Your task to perform on an android device: turn off notifications in google photos Image 0: 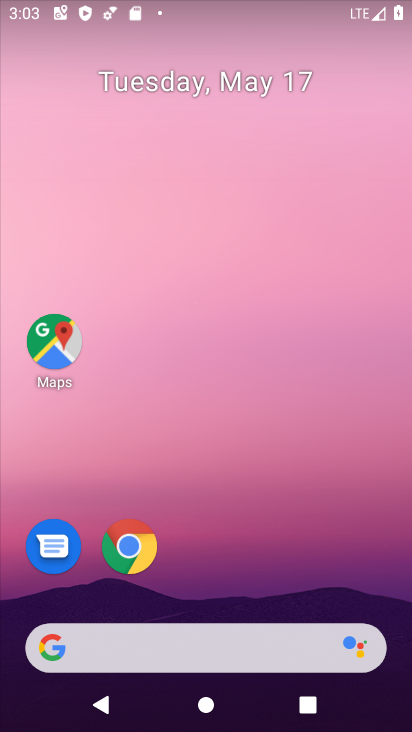
Step 0: press home button
Your task to perform on an android device: turn off notifications in google photos Image 1: 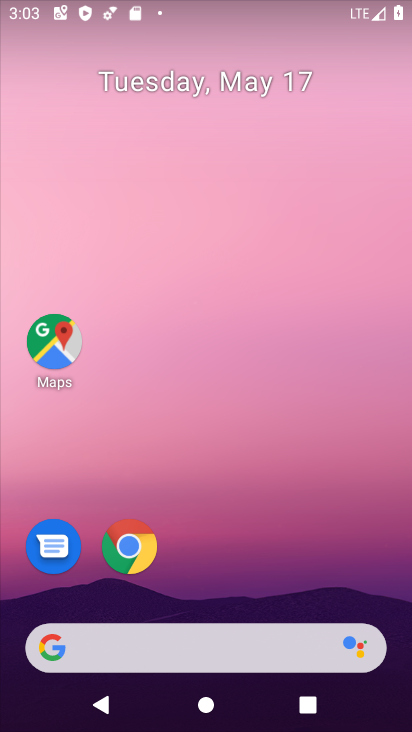
Step 1: drag from (347, 590) to (380, 112)
Your task to perform on an android device: turn off notifications in google photos Image 2: 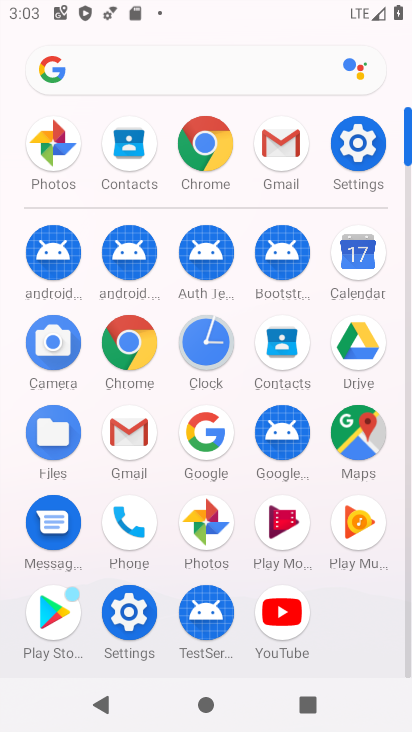
Step 2: click (233, 533)
Your task to perform on an android device: turn off notifications in google photos Image 3: 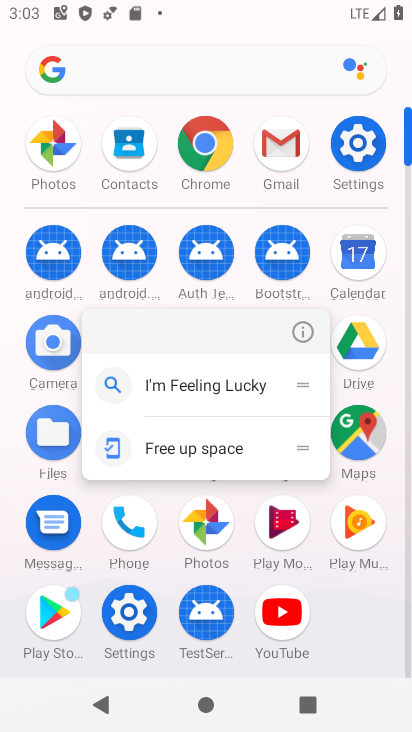
Step 3: click (295, 334)
Your task to perform on an android device: turn off notifications in google photos Image 4: 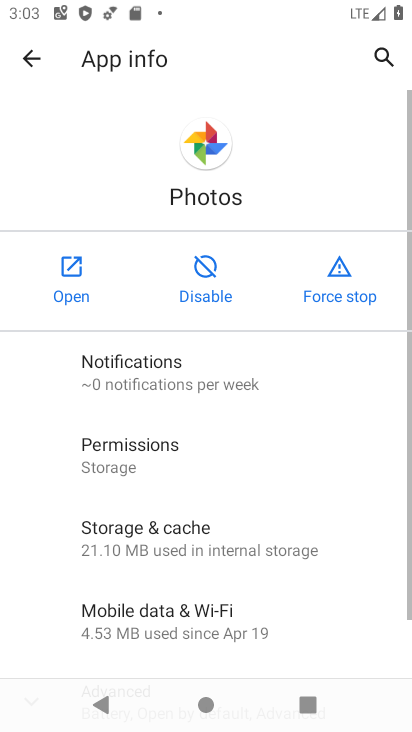
Step 4: click (251, 354)
Your task to perform on an android device: turn off notifications in google photos Image 5: 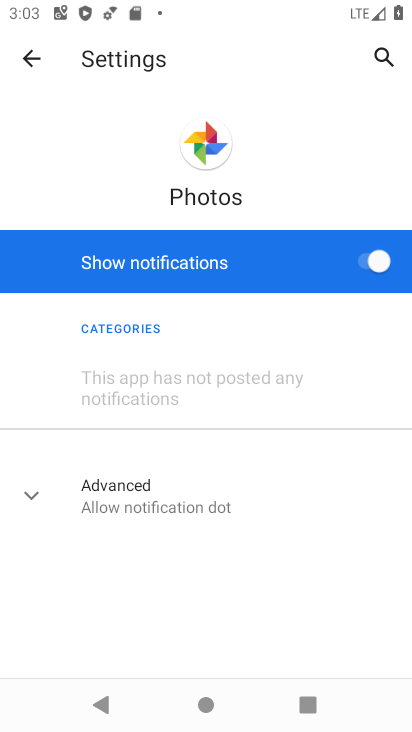
Step 5: click (392, 270)
Your task to perform on an android device: turn off notifications in google photos Image 6: 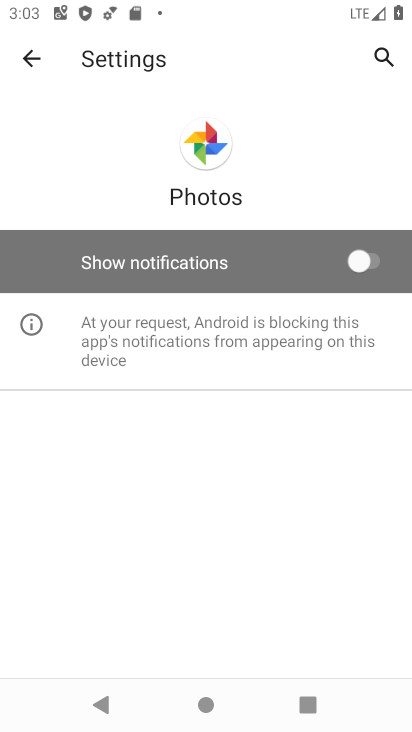
Step 6: task complete